Your task to perform on an android device: Search for pizza restaurants on Maps Image 0: 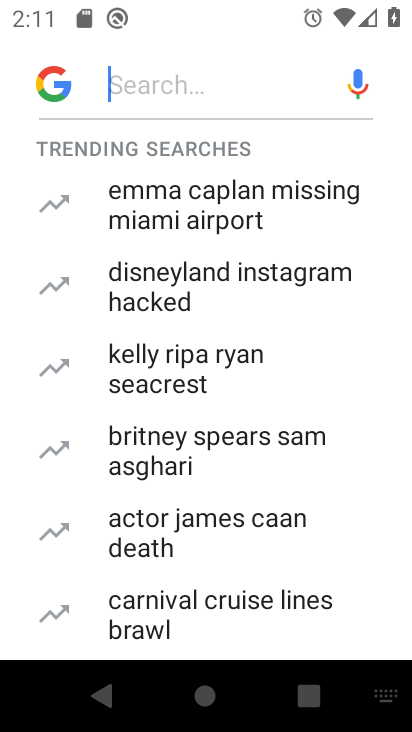
Step 0: press home button
Your task to perform on an android device: Search for pizza restaurants on Maps Image 1: 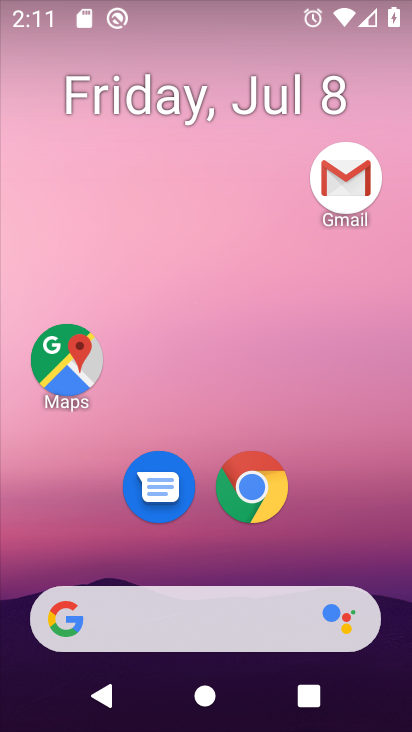
Step 1: drag from (360, 527) to (375, 94)
Your task to perform on an android device: Search for pizza restaurants on Maps Image 2: 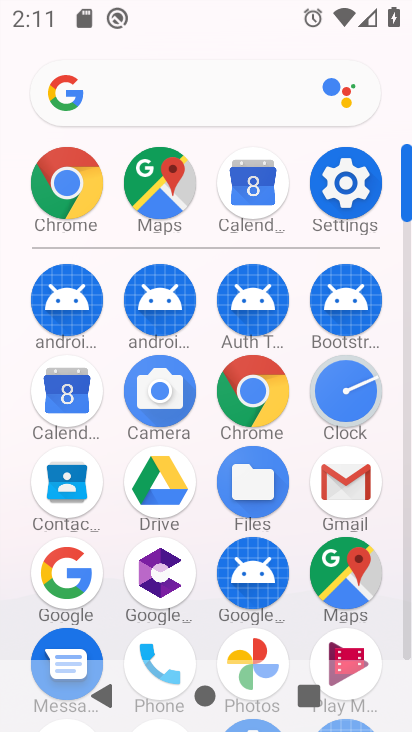
Step 2: click (350, 562)
Your task to perform on an android device: Search for pizza restaurants on Maps Image 3: 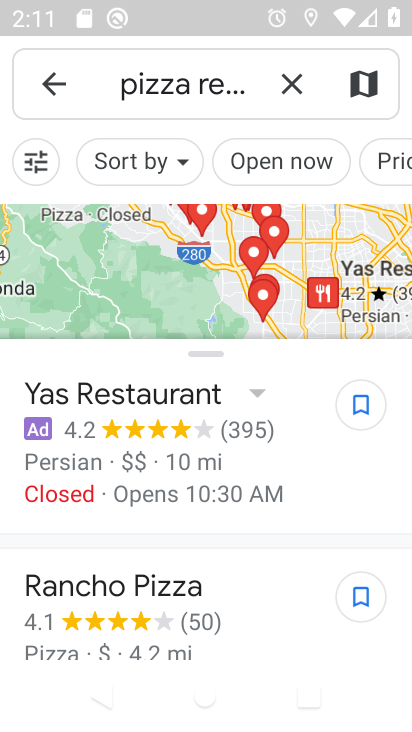
Step 3: task complete